Your task to perform on an android device: turn on improve location accuracy Image 0: 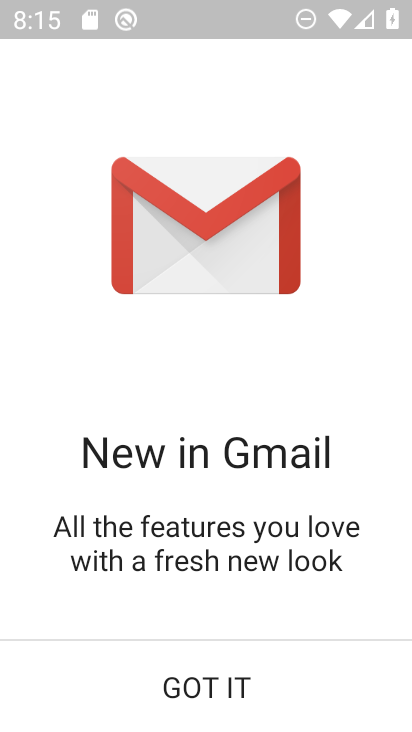
Step 0: press home button
Your task to perform on an android device: turn on improve location accuracy Image 1: 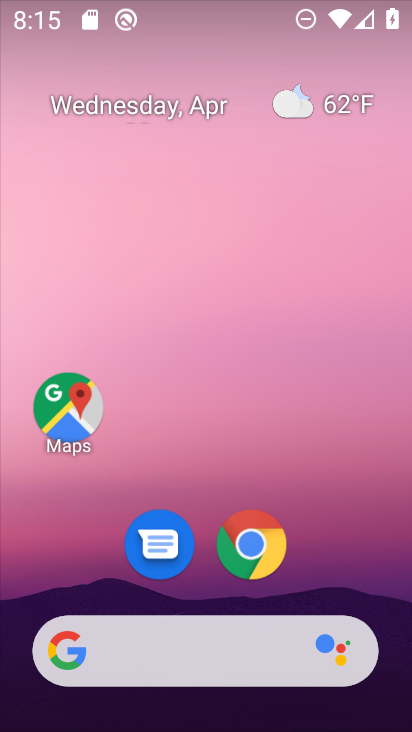
Step 1: drag from (205, 589) to (264, 89)
Your task to perform on an android device: turn on improve location accuracy Image 2: 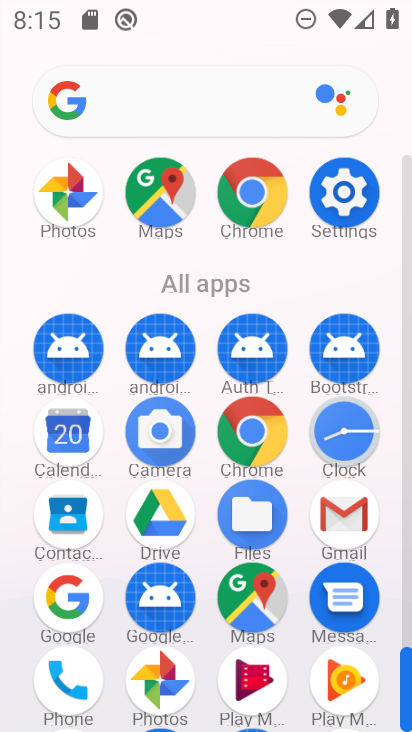
Step 2: click (328, 164)
Your task to perform on an android device: turn on improve location accuracy Image 3: 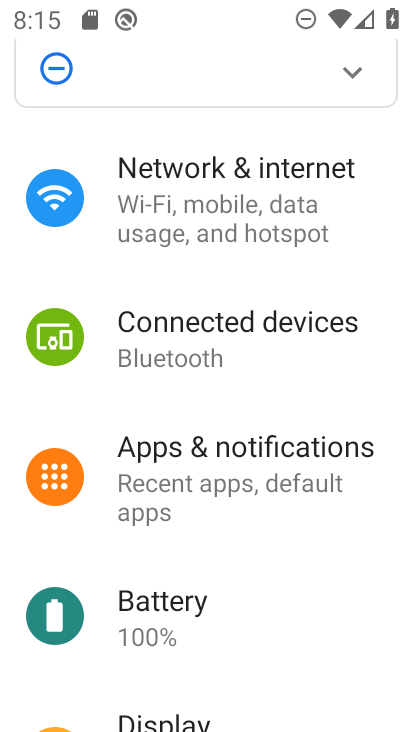
Step 3: drag from (241, 658) to (239, 215)
Your task to perform on an android device: turn on improve location accuracy Image 4: 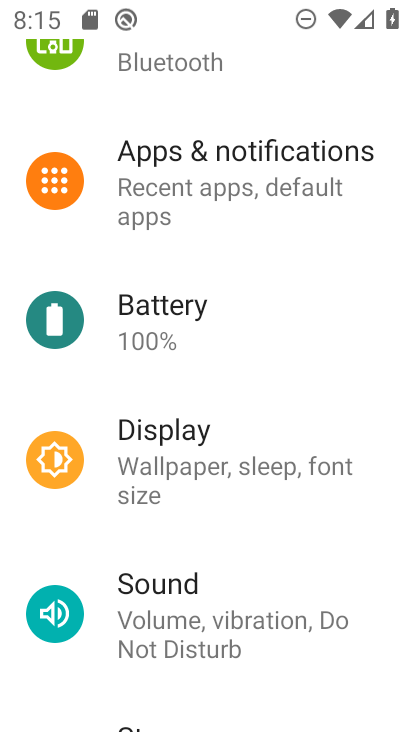
Step 4: drag from (235, 638) to (235, 220)
Your task to perform on an android device: turn on improve location accuracy Image 5: 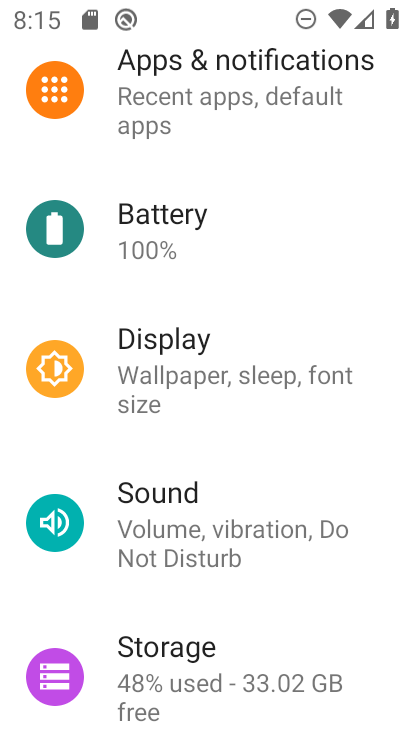
Step 5: drag from (229, 626) to (224, 204)
Your task to perform on an android device: turn on improve location accuracy Image 6: 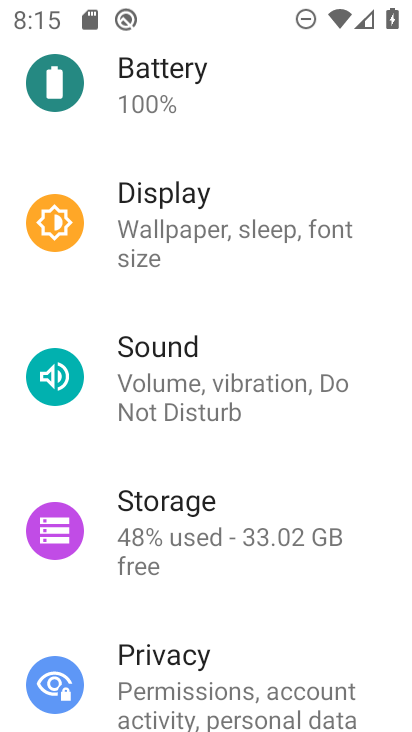
Step 6: drag from (231, 648) to (231, 217)
Your task to perform on an android device: turn on improve location accuracy Image 7: 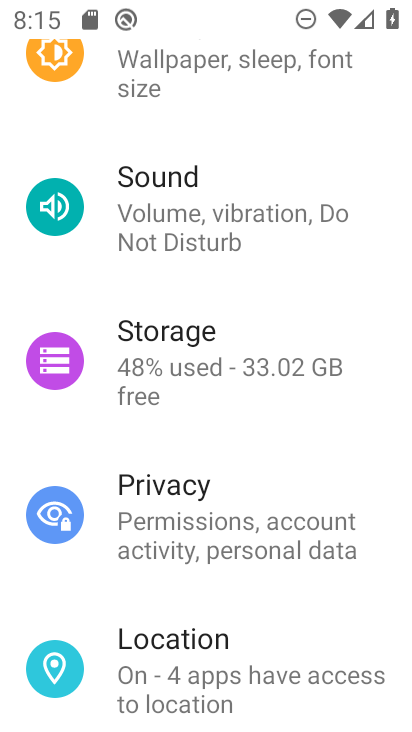
Step 7: click (220, 646)
Your task to perform on an android device: turn on improve location accuracy Image 8: 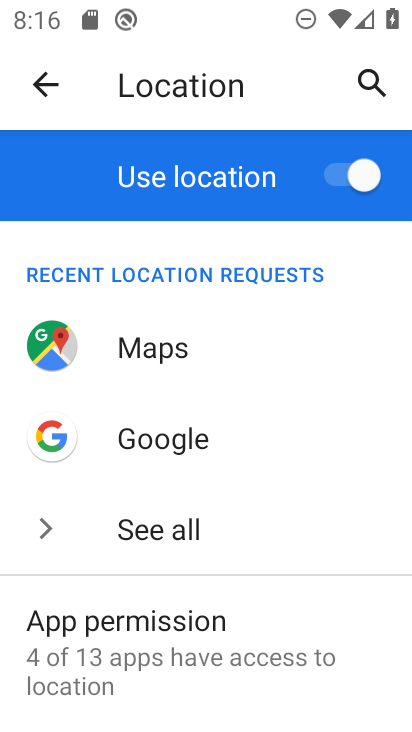
Step 8: drag from (230, 586) to (235, 204)
Your task to perform on an android device: turn on improve location accuracy Image 9: 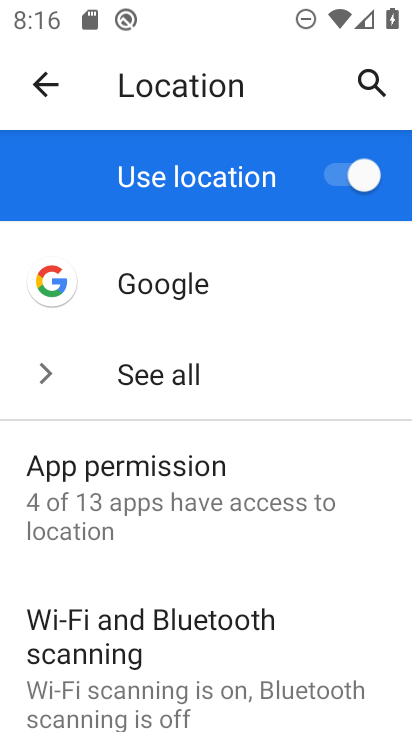
Step 9: drag from (266, 603) to (292, 280)
Your task to perform on an android device: turn on improve location accuracy Image 10: 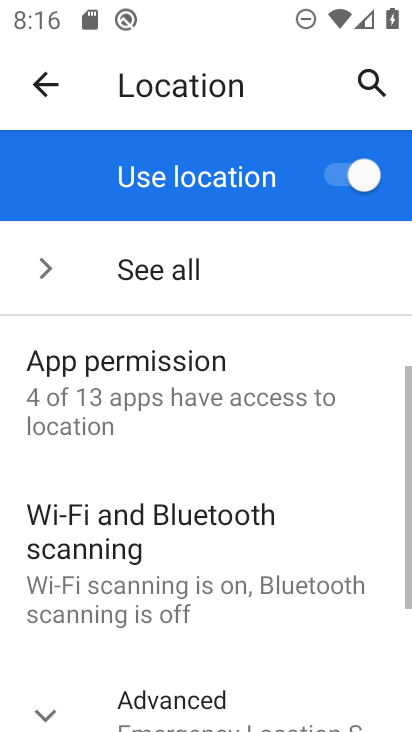
Step 10: drag from (272, 650) to (274, 316)
Your task to perform on an android device: turn on improve location accuracy Image 11: 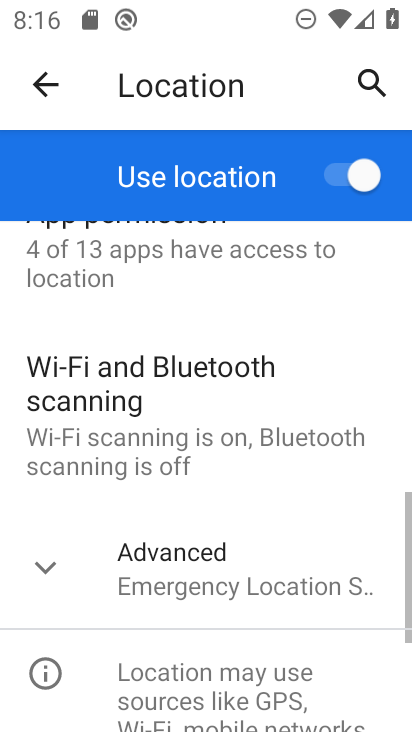
Step 11: drag from (288, 638) to (295, 268)
Your task to perform on an android device: turn on improve location accuracy Image 12: 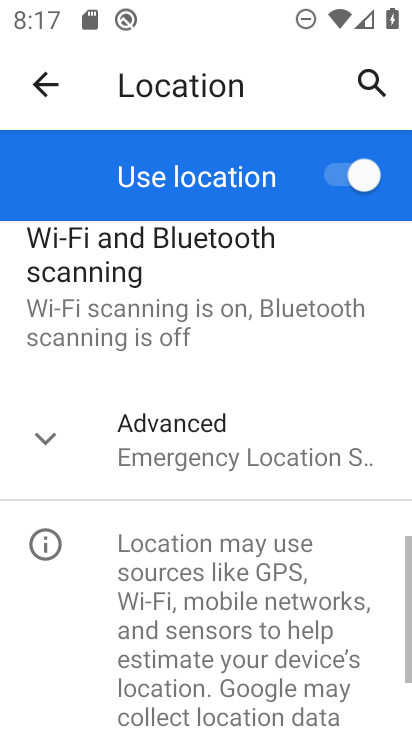
Step 12: click (219, 463)
Your task to perform on an android device: turn on improve location accuracy Image 13: 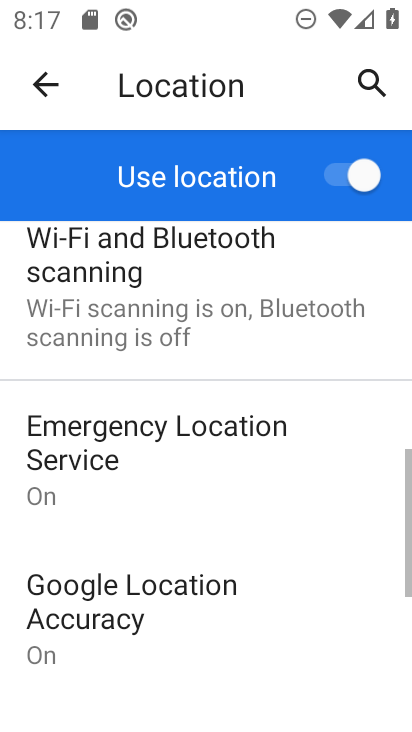
Step 13: drag from (236, 655) to (234, 535)
Your task to perform on an android device: turn on improve location accuracy Image 14: 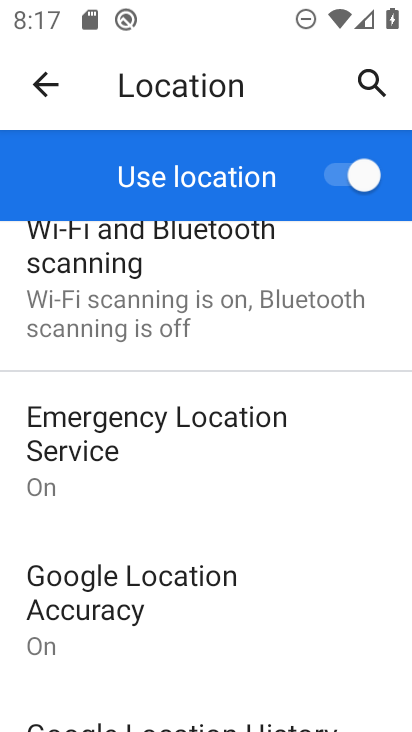
Step 14: click (192, 594)
Your task to perform on an android device: turn on improve location accuracy Image 15: 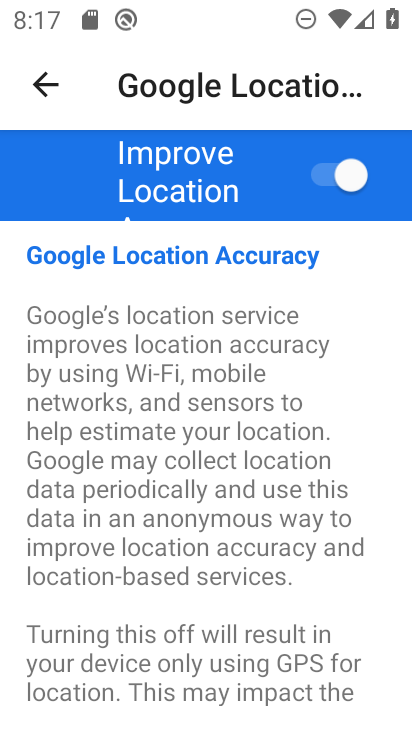
Step 15: task complete